Your task to perform on an android device: Open the stopwatch Image 0: 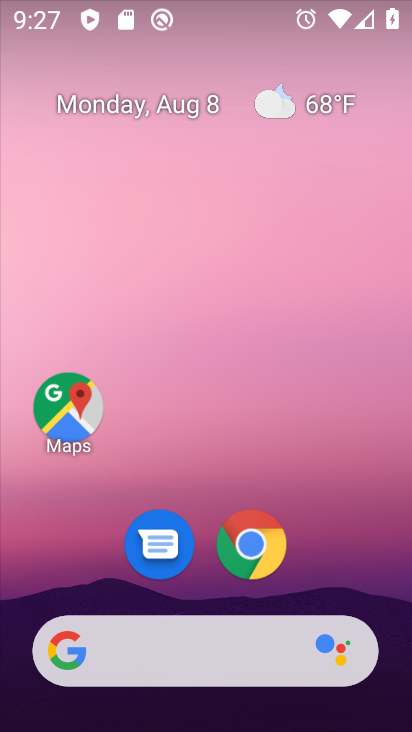
Step 0: drag from (320, 588) to (326, 9)
Your task to perform on an android device: Open the stopwatch Image 1: 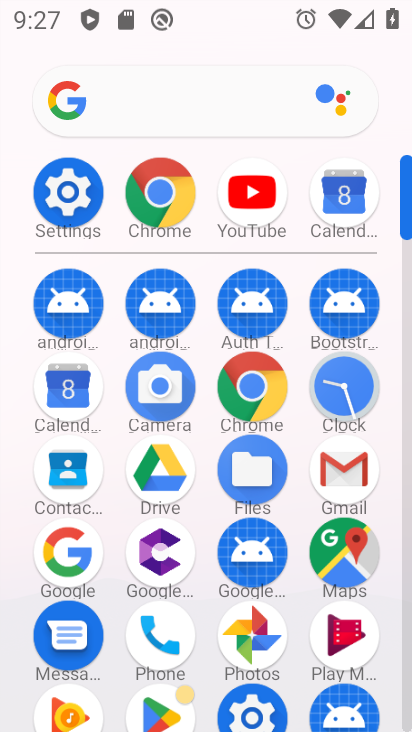
Step 1: click (338, 376)
Your task to perform on an android device: Open the stopwatch Image 2: 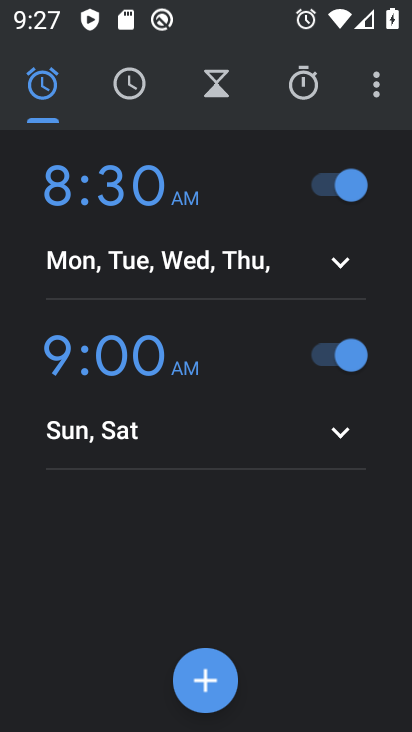
Step 2: click (310, 80)
Your task to perform on an android device: Open the stopwatch Image 3: 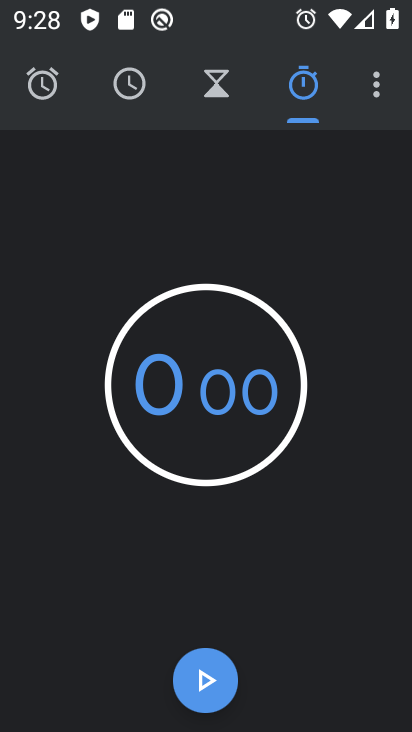
Step 3: click (191, 681)
Your task to perform on an android device: Open the stopwatch Image 4: 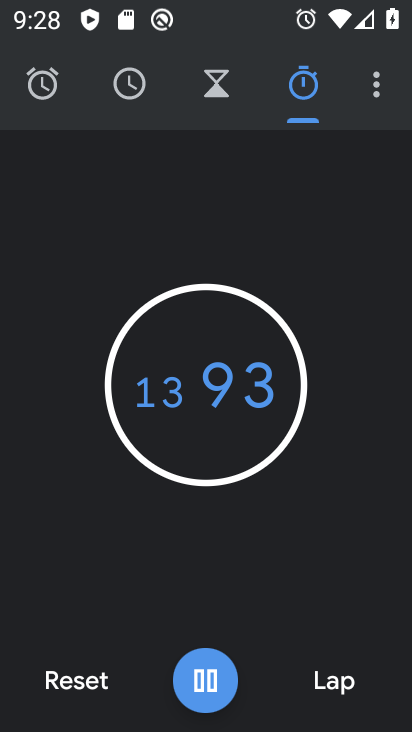
Step 4: task complete